Your task to perform on an android device: Open calendar and show me the third week of next month Image 0: 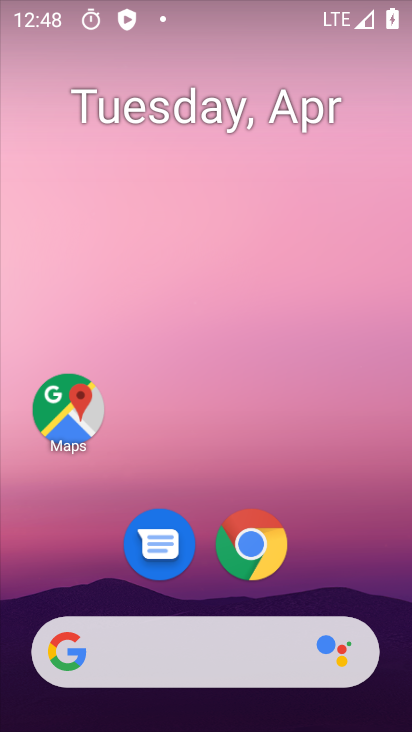
Step 0: drag from (374, 585) to (349, 25)
Your task to perform on an android device: Open calendar and show me the third week of next month Image 1: 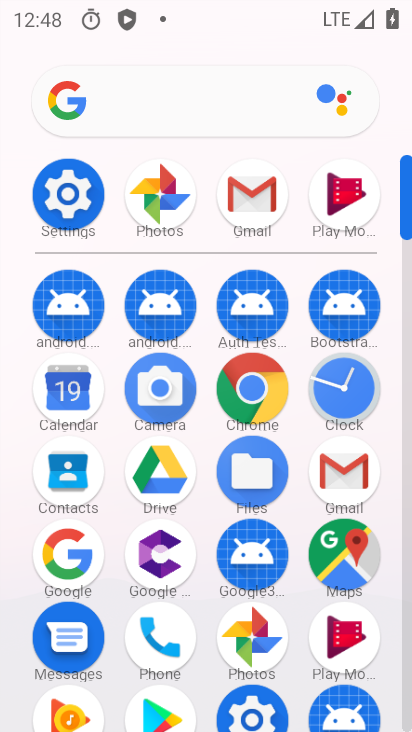
Step 1: click (67, 395)
Your task to perform on an android device: Open calendar and show me the third week of next month Image 2: 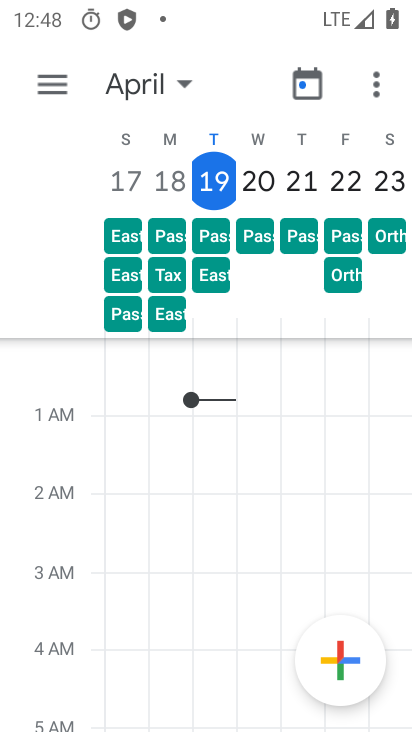
Step 2: click (186, 84)
Your task to perform on an android device: Open calendar and show me the third week of next month Image 3: 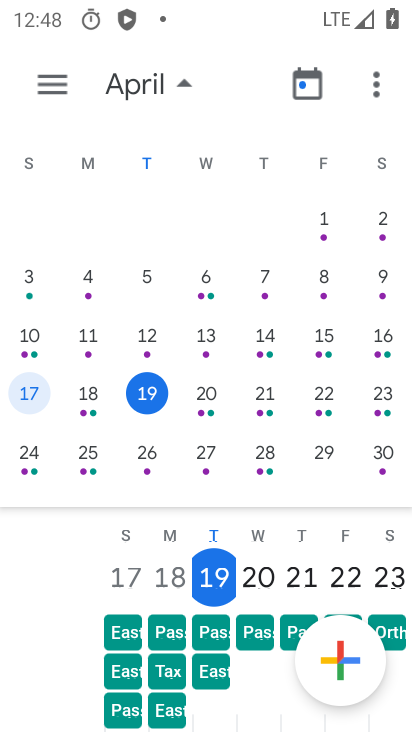
Step 3: drag from (316, 307) to (9, 321)
Your task to perform on an android device: Open calendar and show me the third week of next month Image 4: 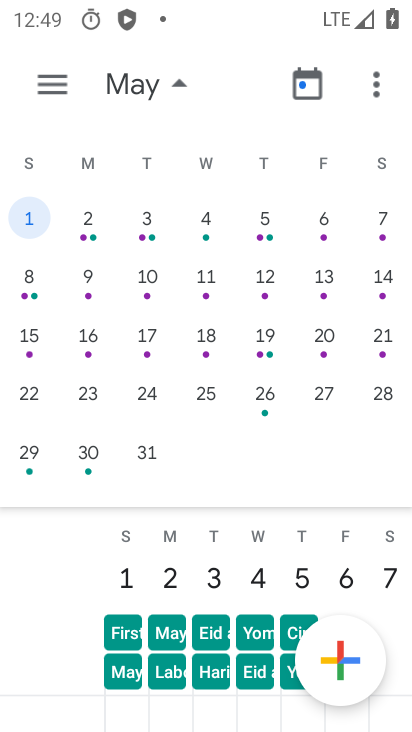
Step 4: click (59, 78)
Your task to perform on an android device: Open calendar and show me the third week of next month Image 5: 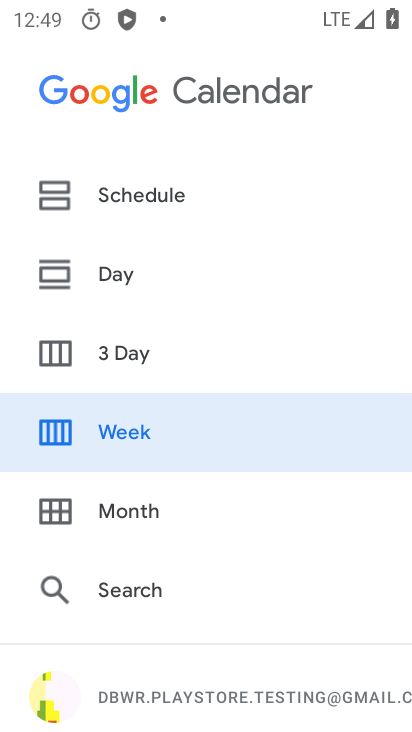
Step 5: click (86, 429)
Your task to perform on an android device: Open calendar and show me the third week of next month Image 6: 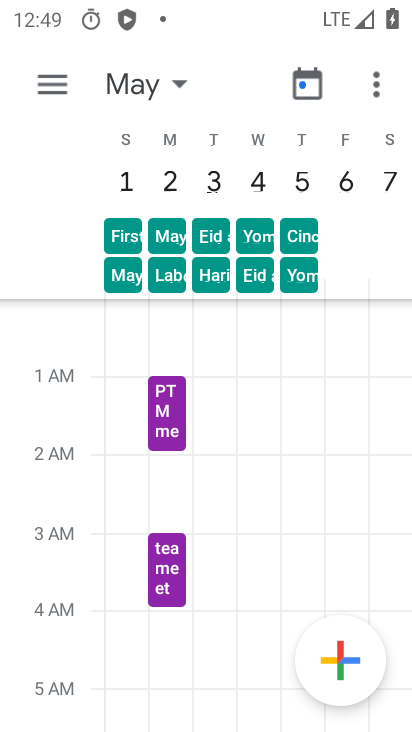
Step 6: task complete